Your task to perform on an android device: turn off location history Image 0: 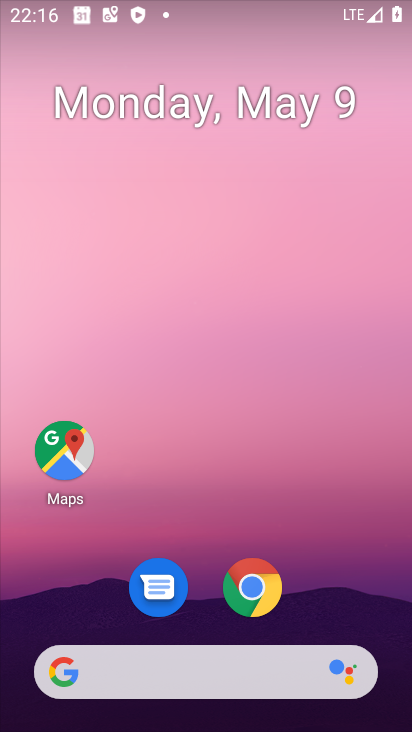
Step 0: drag from (201, 620) to (224, 121)
Your task to perform on an android device: turn off location history Image 1: 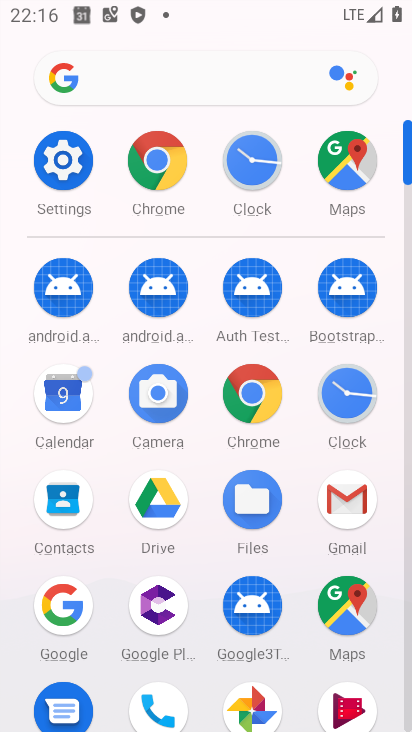
Step 1: click (65, 177)
Your task to perform on an android device: turn off location history Image 2: 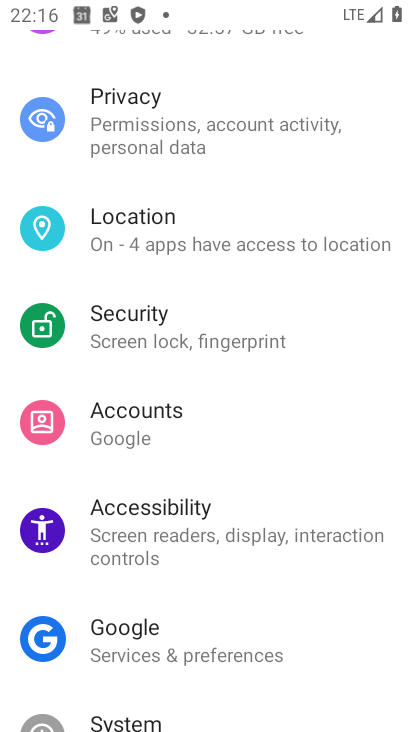
Step 2: click (154, 226)
Your task to perform on an android device: turn off location history Image 3: 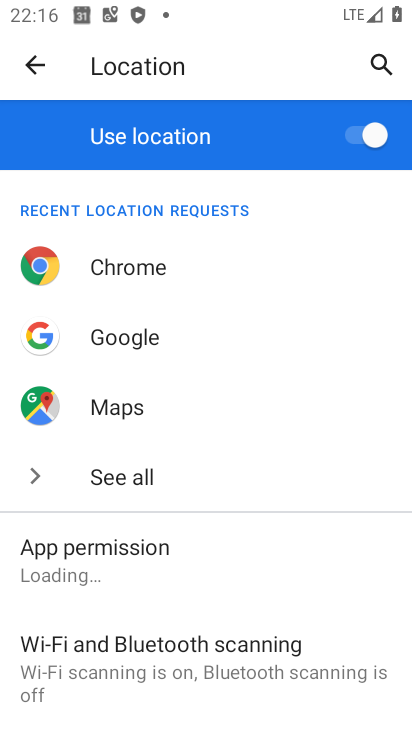
Step 3: click (362, 142)
Your task to perform on an android device: turn off location history Image 4: 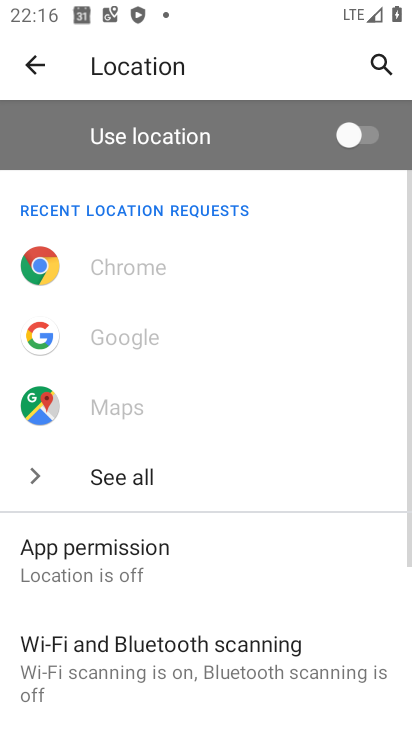
Step 4: task complete